Your task to perform on an android device: Is it going to rain today? Image 0: 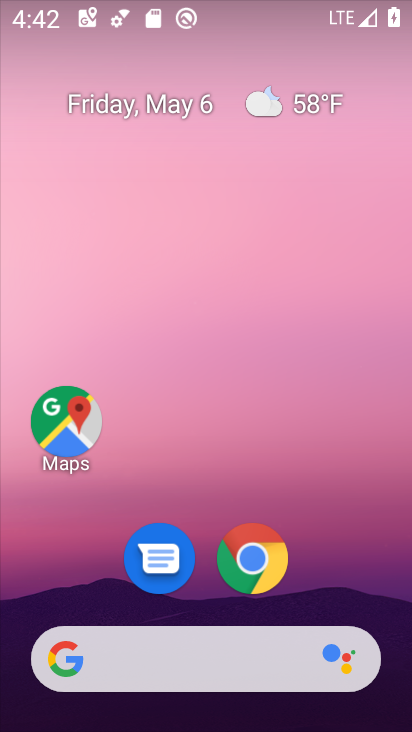
Step 0: drag from (318, 618) to (329, 19)
Your task to perform on an android device: Is it going to rain today? Image 1: 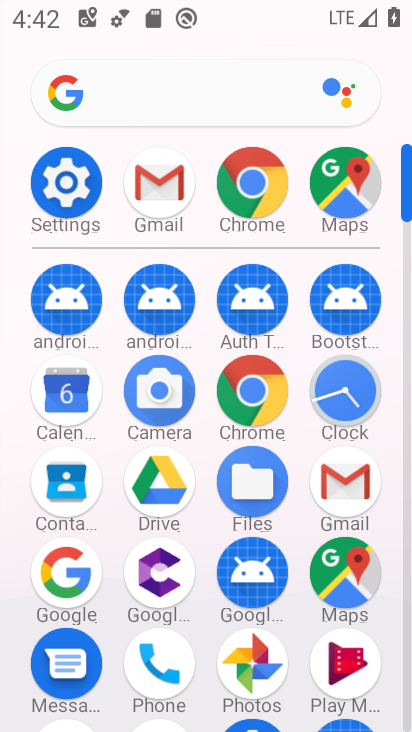
Step 1: click (255, 389)
Your task to perform on an android device: Is it going to rain today? Image 2: 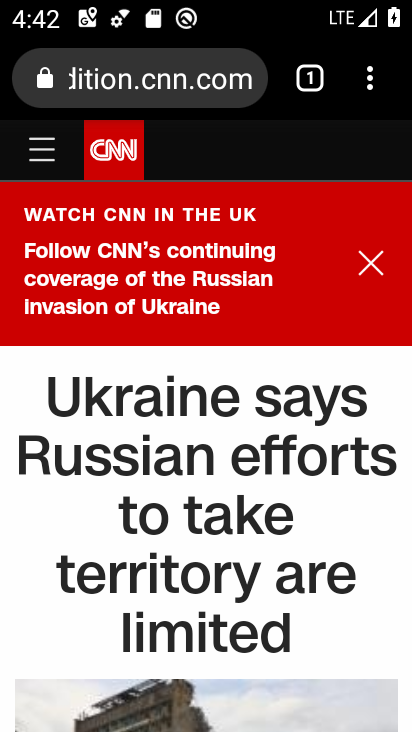
Step 2: click (236, 93)
Your task to perform on an android device: Is it going to rain today? Image 3: 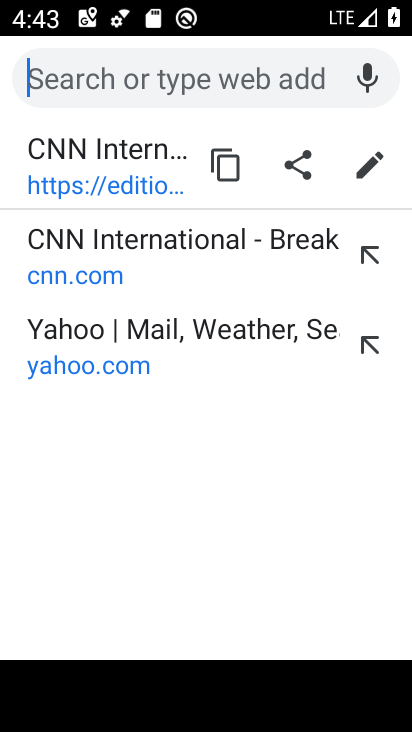
Step 3: type "rain today"
Your task to perform on an android device: Is it going to rain today? Image 4: 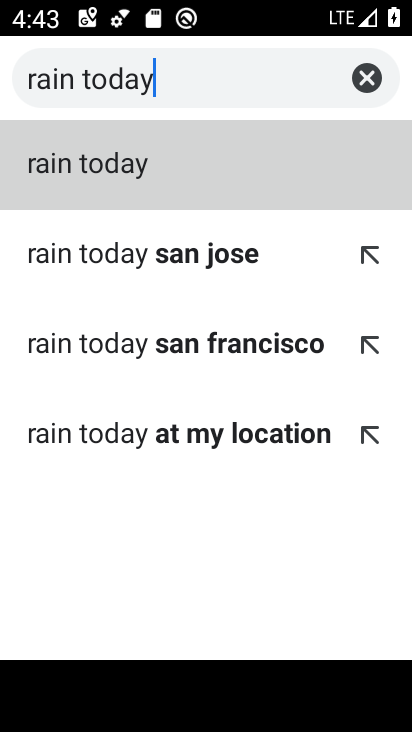
Step 4: click (176, 188)
Your task to perform on an android device: Is it going to rain today? Image 5: 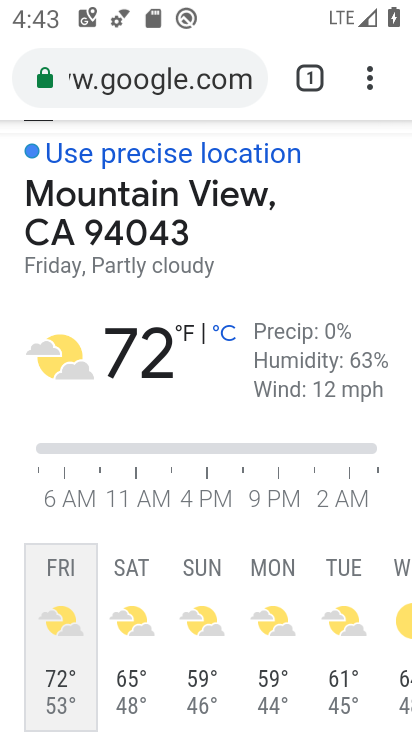
Step 5: task complete